Your task to perform on an android device: Go to Amazon Image 0: 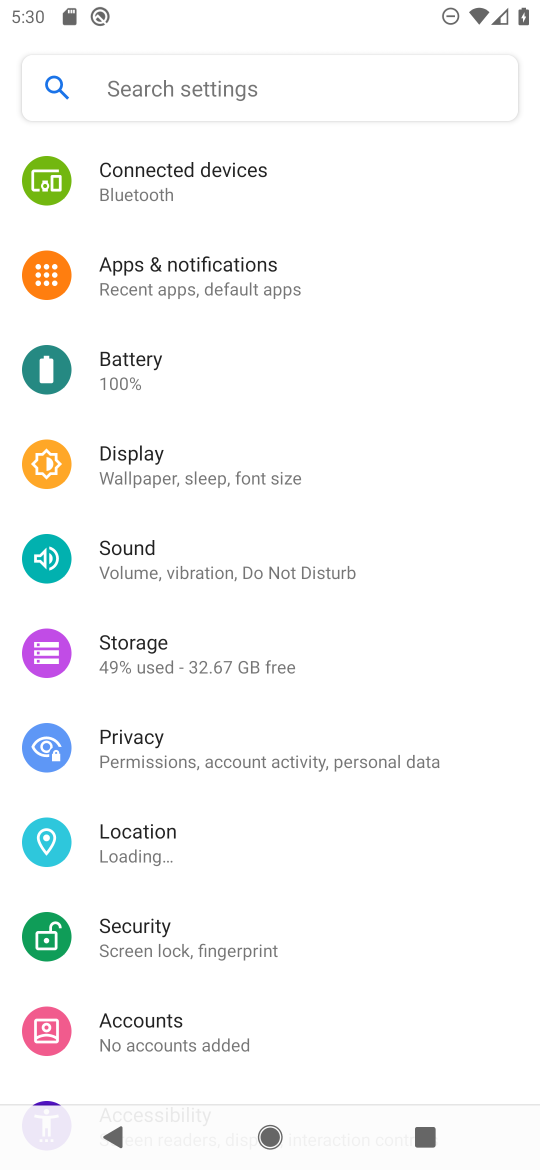
Step 0: press home button
Your task to perform on an android device: Go to Amazon Image 1: 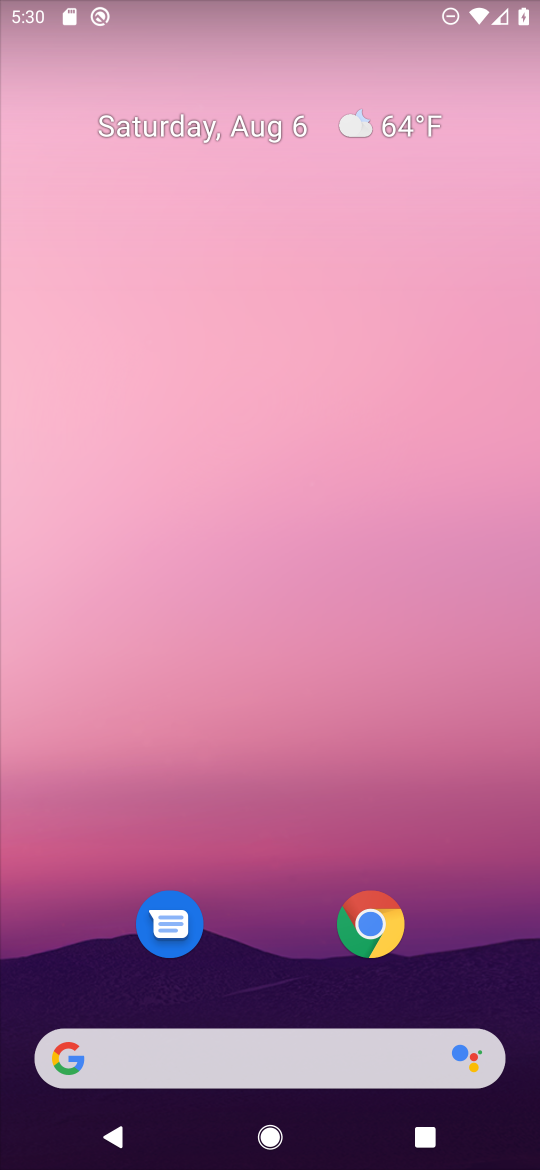
Step 1: click (375, 912)
Your task to perform on an android device: Go to Amazon Image 2: 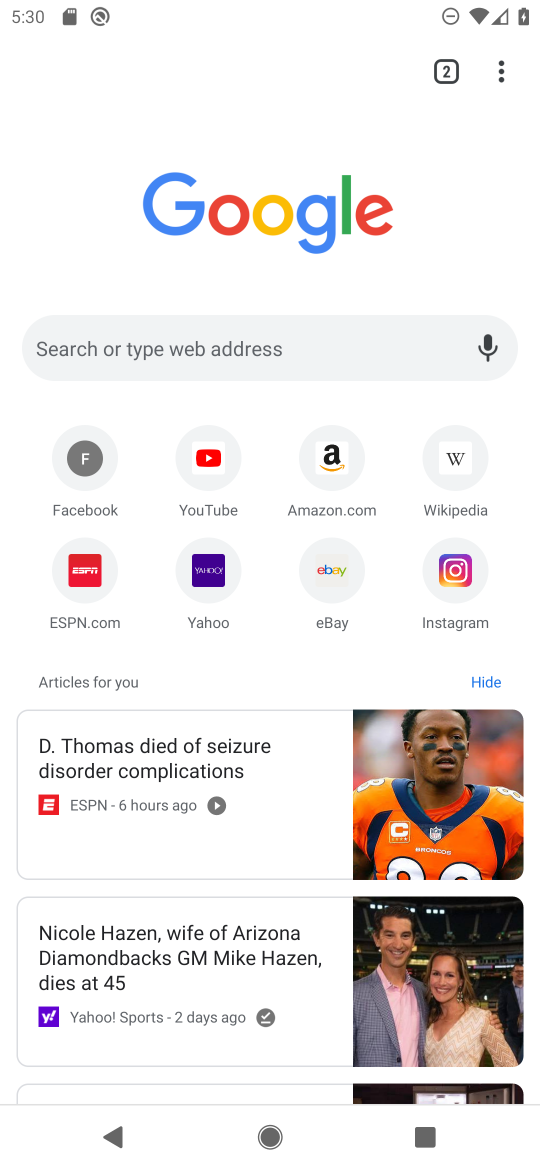
Step 2: click (336, 458)
Your task to perform on an android device: Go to Amazon Image 3: 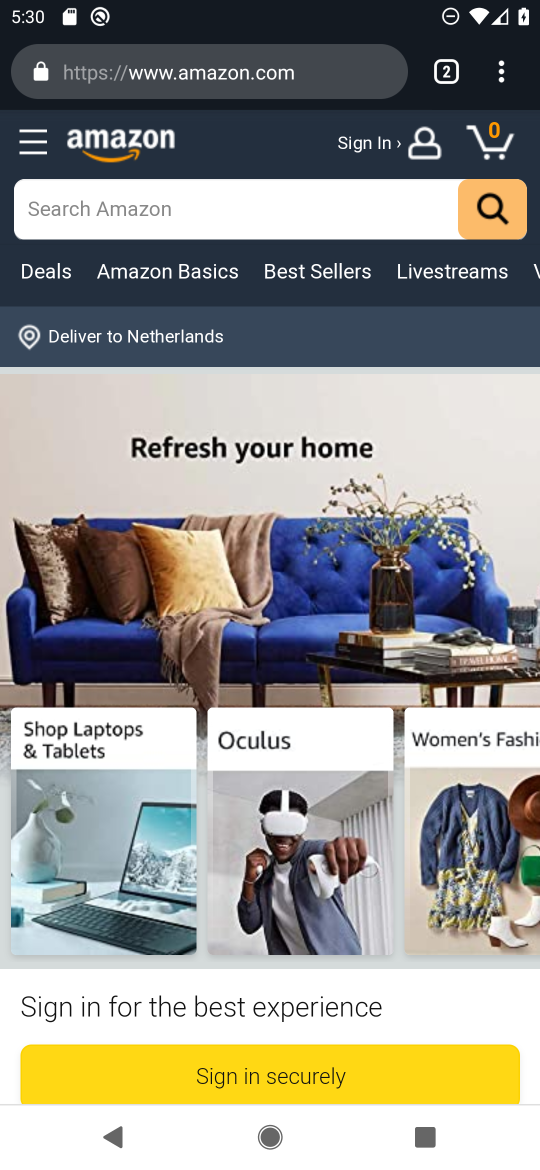
Step 3: task complete